Your task to perform on an android device: snooze an email in the gmail app Image 0: 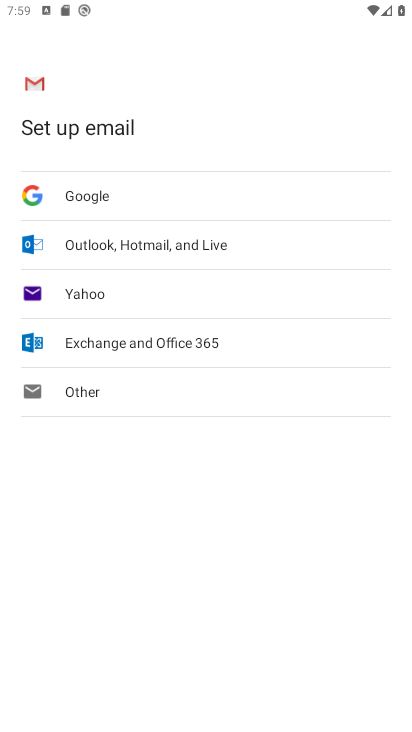
Step 0: press home button
Your task to perform on an android device: snooze an email in the gmail app Image 1: 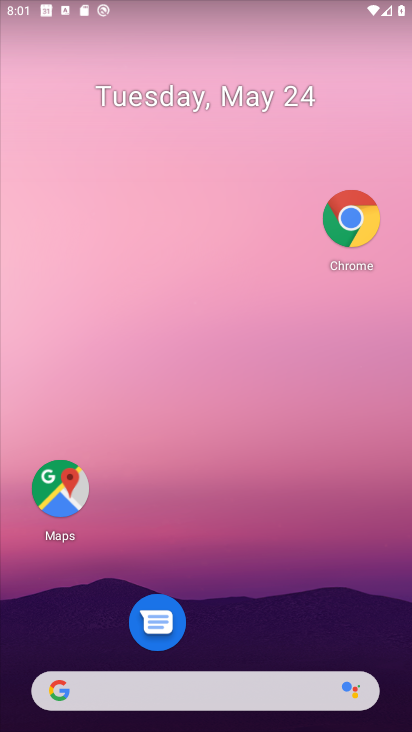
Step 1: drag from (291, 711) to (229, 67)
Your task to perform on an android device: snooze an email in the gmail app Image 2: 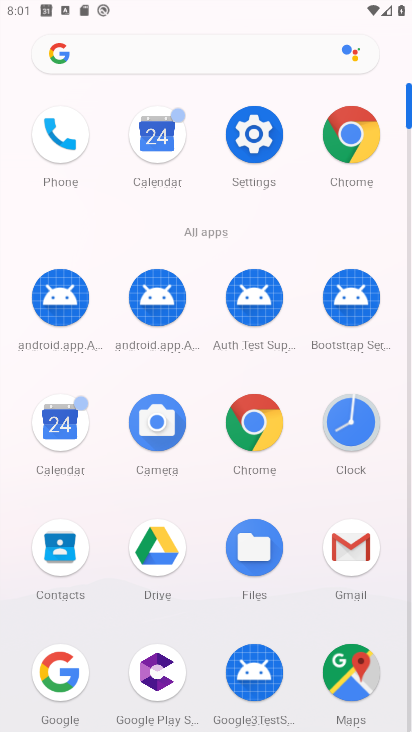
Step 2: click (354, 557)
Your task to perform on an android device: snooze an email in the gmail app Image 3: 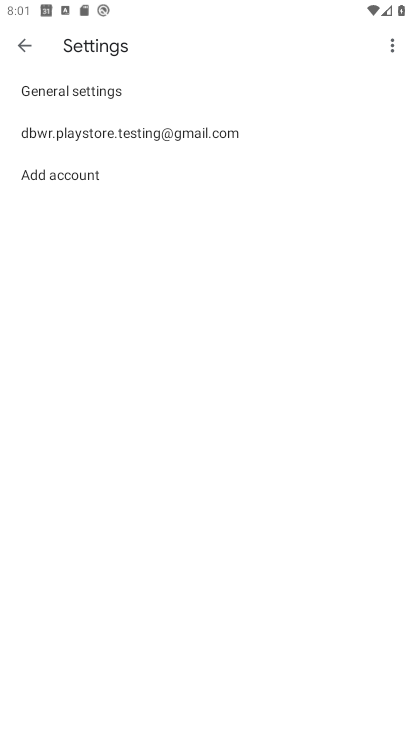
Step 3: click (24, 39)
Your task to perform on an android device: snooze an email in the gmail app Image 4: 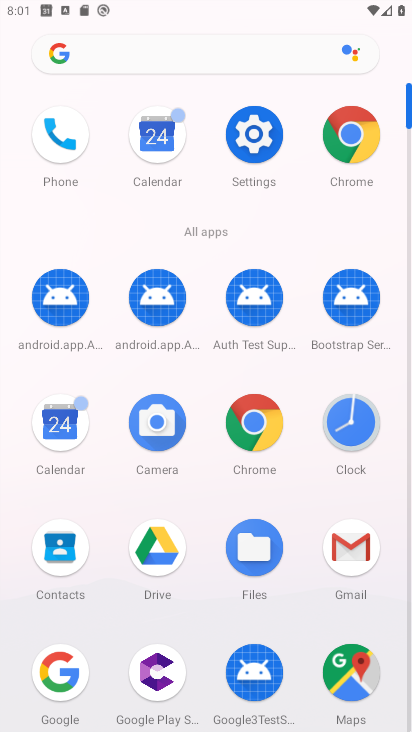
Step 4: click (335, 542)
Your task to perform on an android device: snooze an email in the gmail app Image 5: 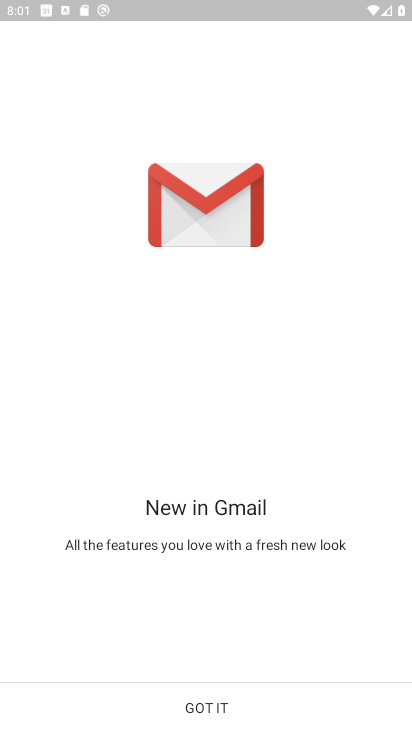
Step 5: click (297, 692)
Your task to perform on an android device: snooze an email in the gmail app Image 6: 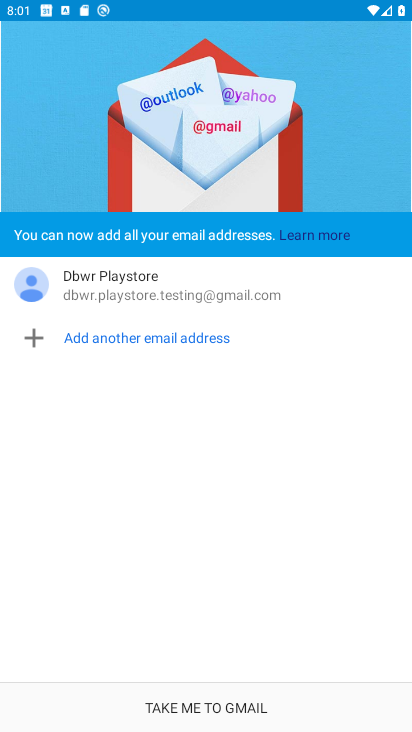
Step 6: click (143, 292)
Your task to perform on an android device: snooze an email in the gmail app Image 7: 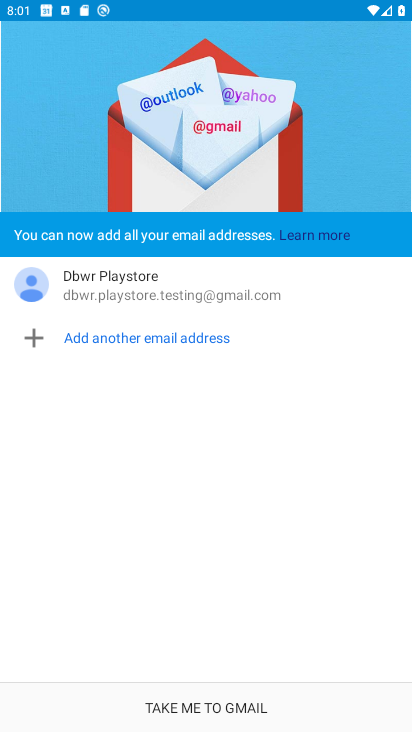
Step 7: click (214, 712)
Your task to perform on an android device: snooze an email in the gmail app Image 8: 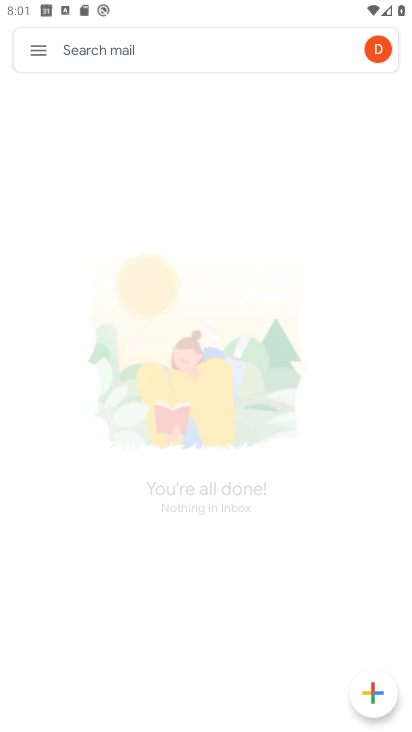
Step 8: click (37, 43)
Your task to perform on an android device: snooze an email in the gmail app Image 9: 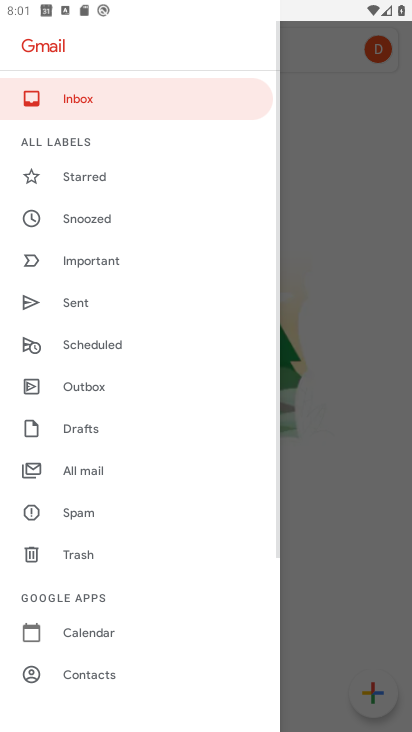
Step 9: click (130, 223)
Your task to perform on an android device: snooze an email in the gmail app Image 10: 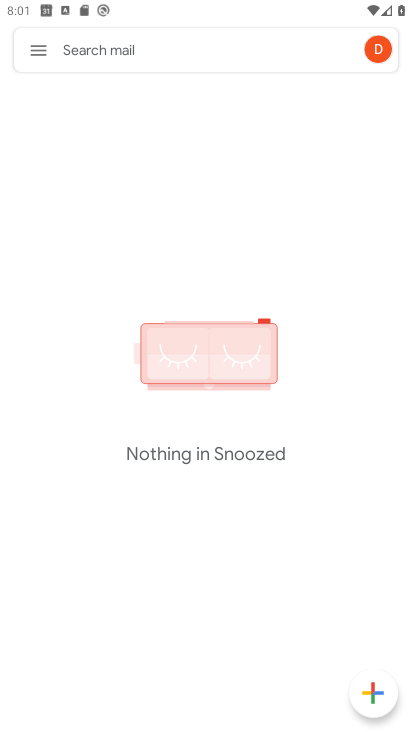
Step 10: task complete